Your task to perform on an android device: manage bookmarks in the chrome app Image 0: 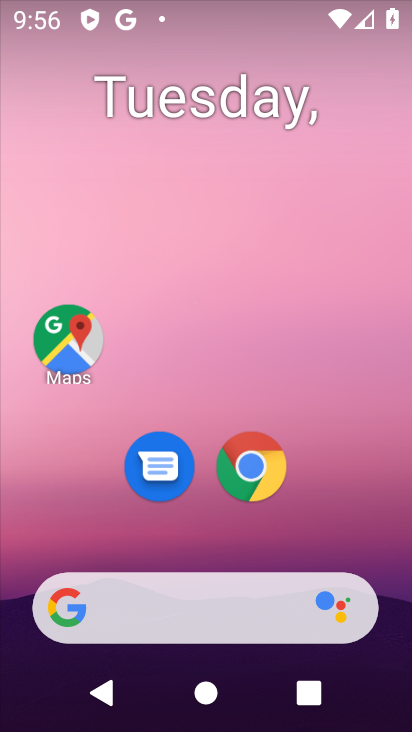
Step 0: click (253, 465)
Your task to perform on an android device: manage bookmarks in the chrome app Image 1: 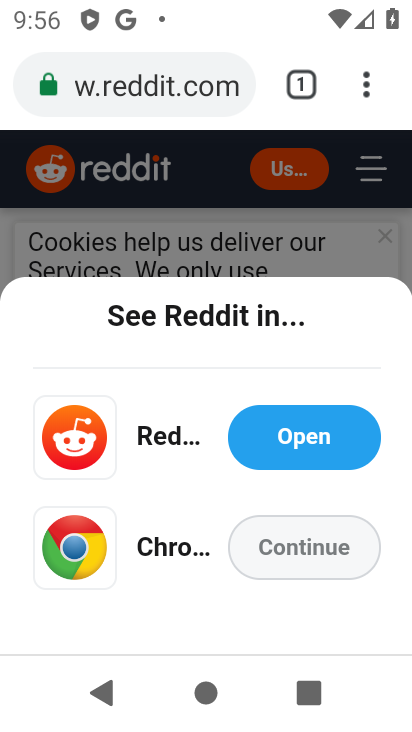
Step 1: click (363, 74)
Your task to perform on an android device: manage bookmarks in the chrome app Image 2: 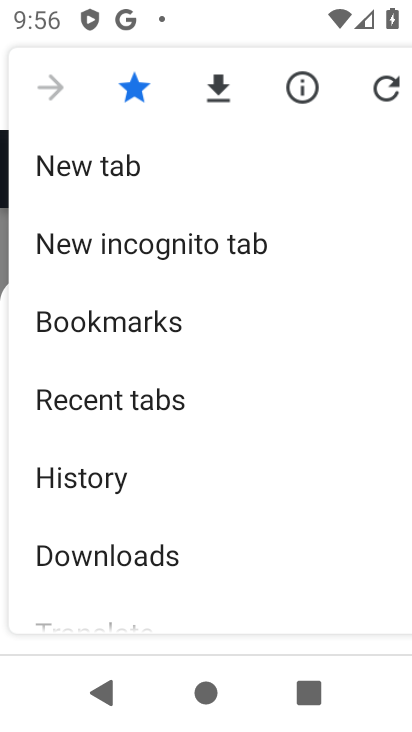
Step 2: click (144, 320)
Your task to perform on an android device: manage bookmarks in the chrome app Image 3: 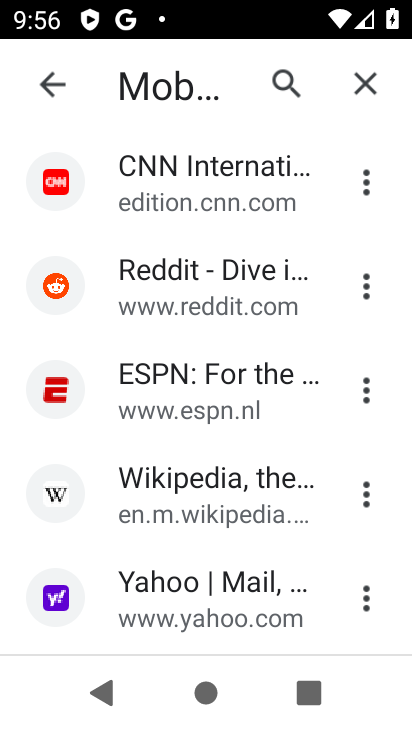
Step 3: drag from (154, 636) to (258, 202)
Your task to perform on an android device: manage bookmarks in the chrome app Image 4: 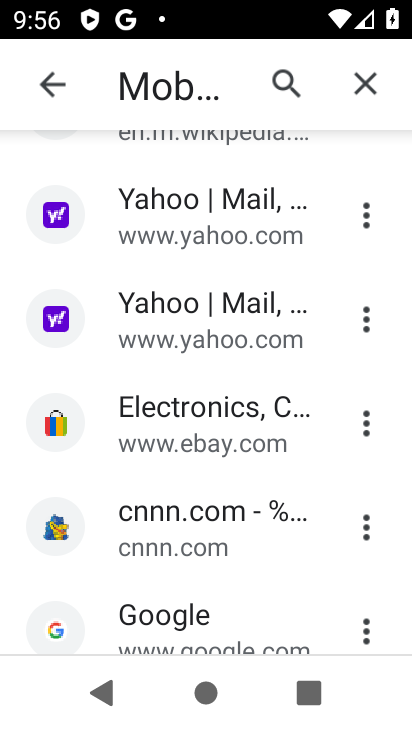
Step 4: click (365, 309)
Your task to perform on an android device: manage bookmarks in the chrome app Image 5: 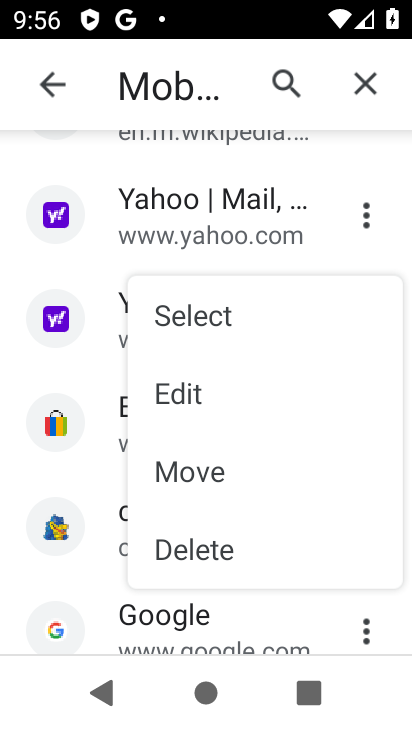
Step 5: click (200, 562)
Your task to perform on an android device: manage bookmarks in the chrome app Image 6: 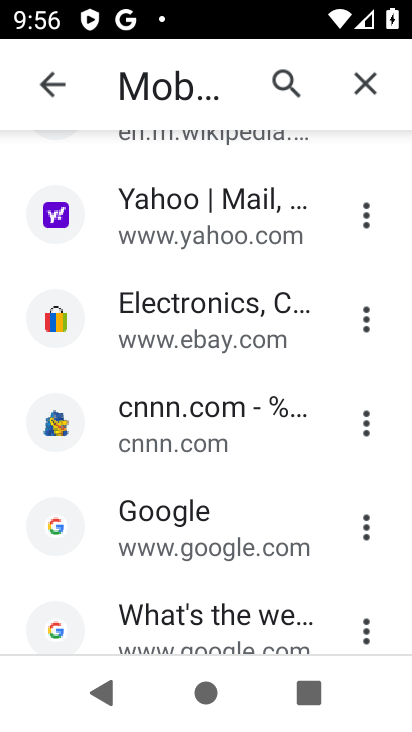
Step 6: task complete